Your task to perform on an android device: Open calendar and show me the fourth week of next month Image 0: 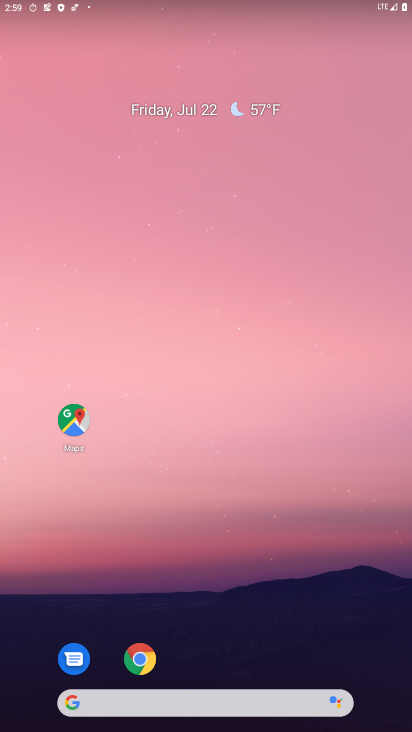
Step 0: drag from (316, 637) to (313, 94)
Your task to perform on an android device: Open calendar and show me the fourth week of next month Image 1: 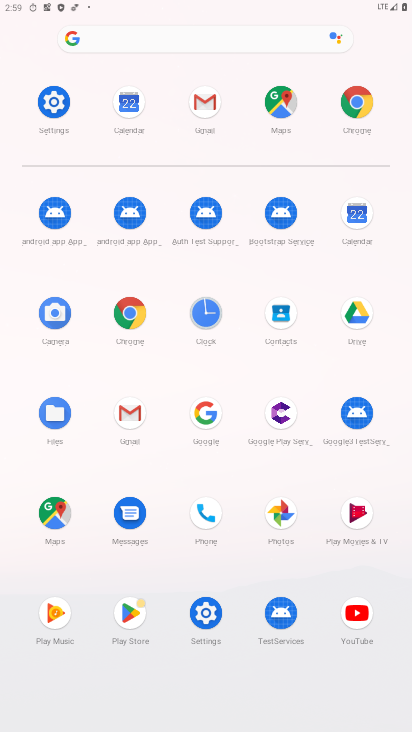
Step 1: click (361, 212)
Your task to perform on an android device: Open calendar and show me the fourth week of next month Image 2: 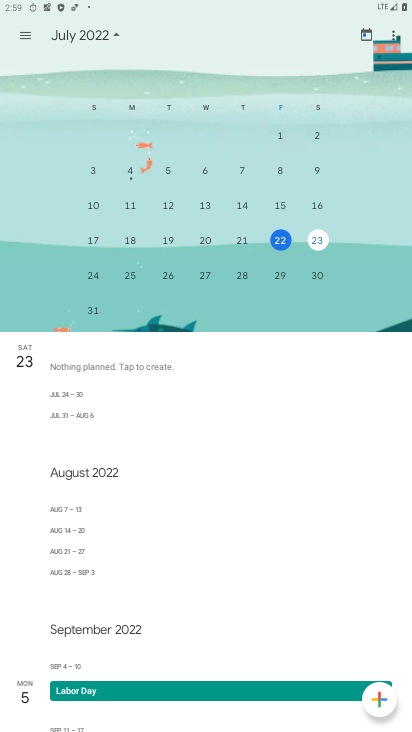
Step 2: drag from (360, 212) to (5, 166)
Your task to perform on an android device: Open calendar and show me the fourth week of next month Image 3: 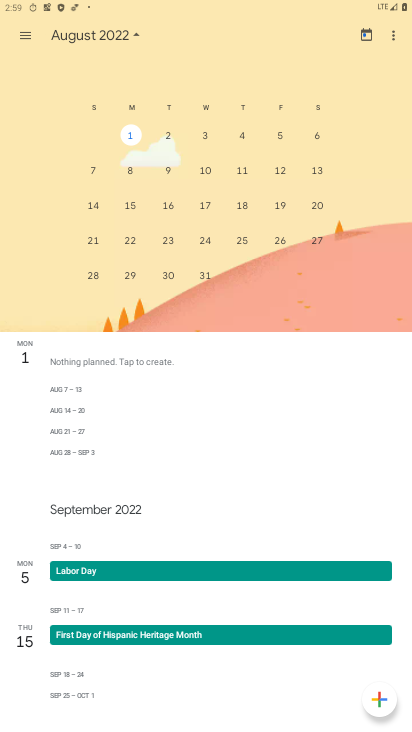
Step 3: click (91, 233)
Your task to perform on an android device: Open calendar and show me the fourth week of next month Image 4: 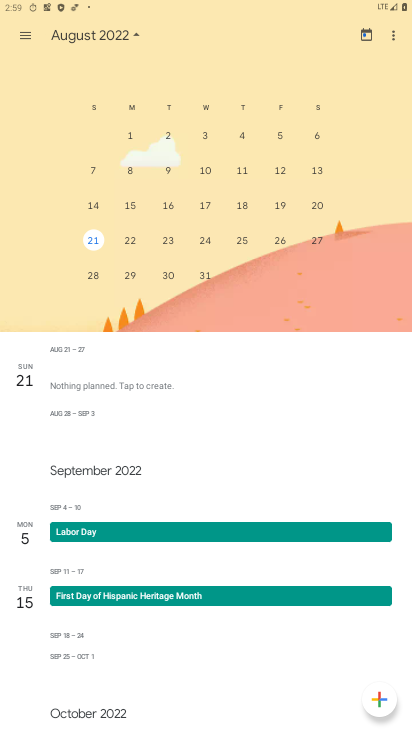
Step 4: task complete